Your task to perform on an android device: Search for seafood restaurants on Google Maps Image 0: 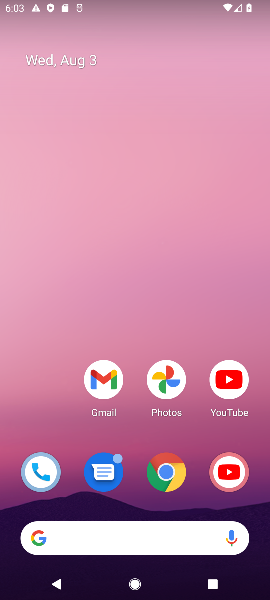
Step 0: drag from (138, 357) to (114, 30)
Your task to perform on an android device: Search for seafood restaurants on Google Maps Image 1: 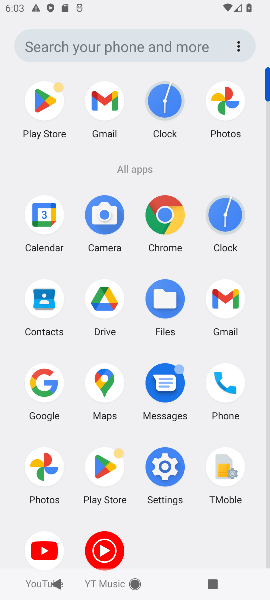
Step 1: click (113, 393)
Your task to perform on an android device: Search for seafood restaurants on Google Maps Image 2: 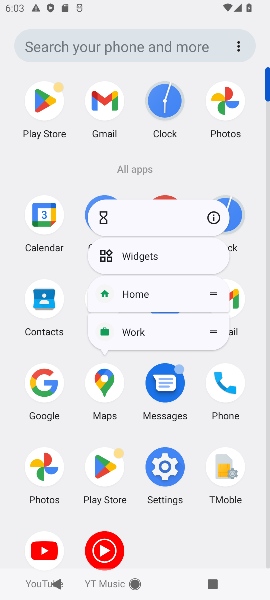
Step 2: click (109, 391)
Your task to perform on an android device: Search for seafood restaurants on Google Maps Image 3: 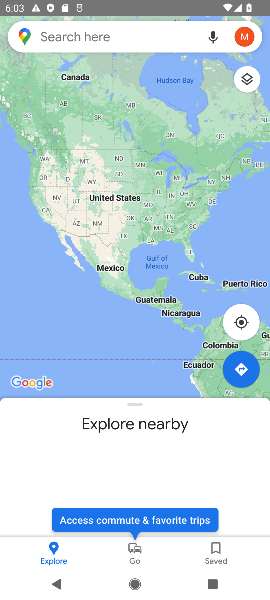
Step 3: click (126, 39)
Your task to perform on an android device: Search for seafood restaurants on Google Maps Image 4: 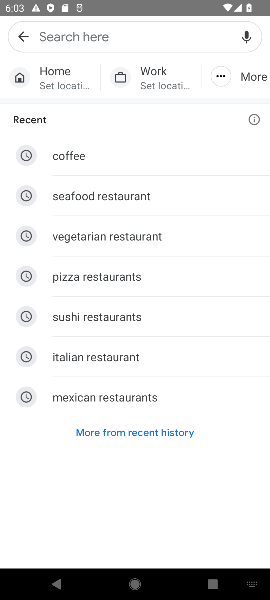
Step 4: click (157, 203)
Your task to perform on an android device: Search for seafood restaurants on Google Maps Image 5: 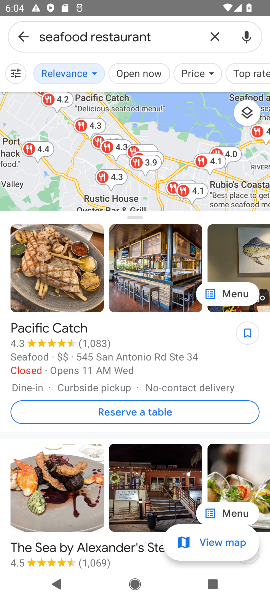
Step 5: task complete